Your task to perform on an android device: Clear all items from cart on costco.com. Add "usb-c to usb-b" to the cart on costco.com Image 0: 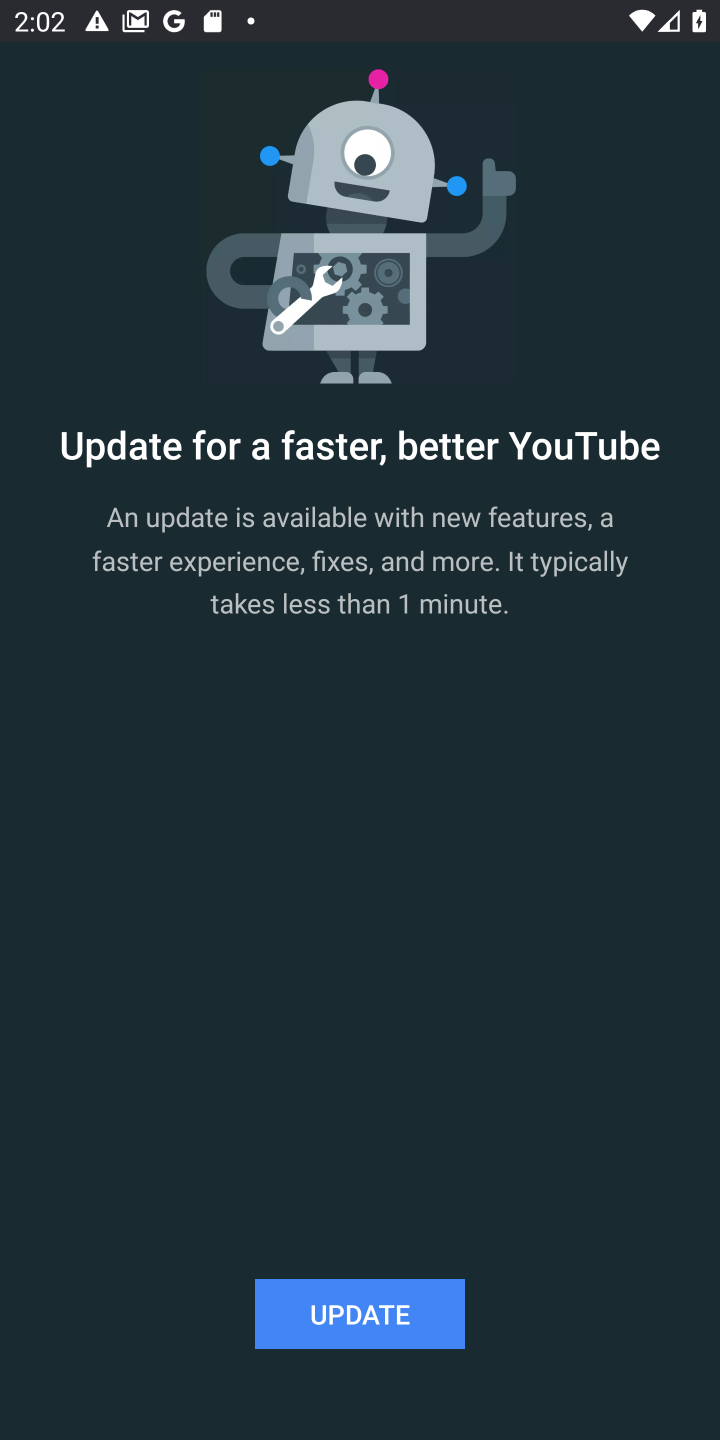
Step 0: press home button
Your task to perform on an android device: Clear all items from cart on costco.com. Add "usb-c to usb-b" to the cart on costco.com Image 1: 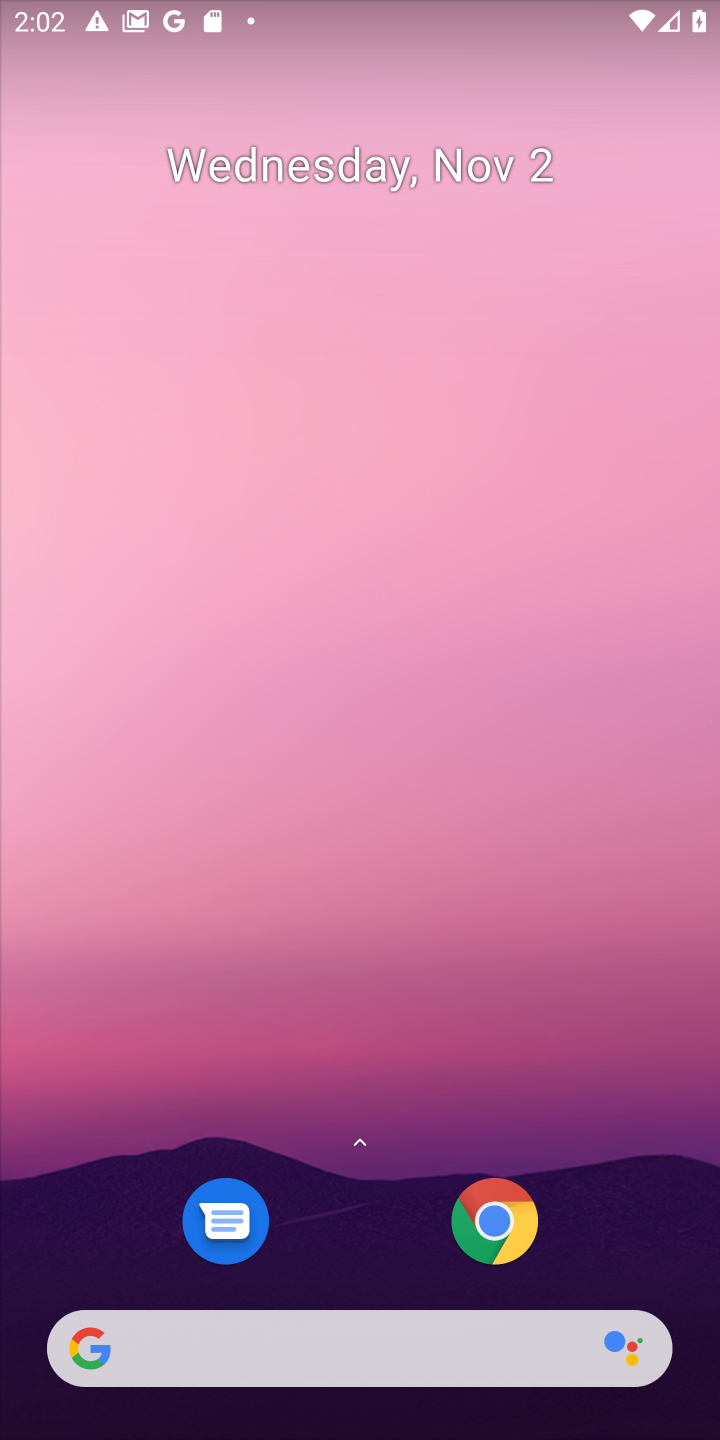
Step 1: click (279, 1372)
Your task to perform on an android device: Clear all items from cart on costco.com. Add "usb-c to usb-b" to the cart on costco.com Image 2: 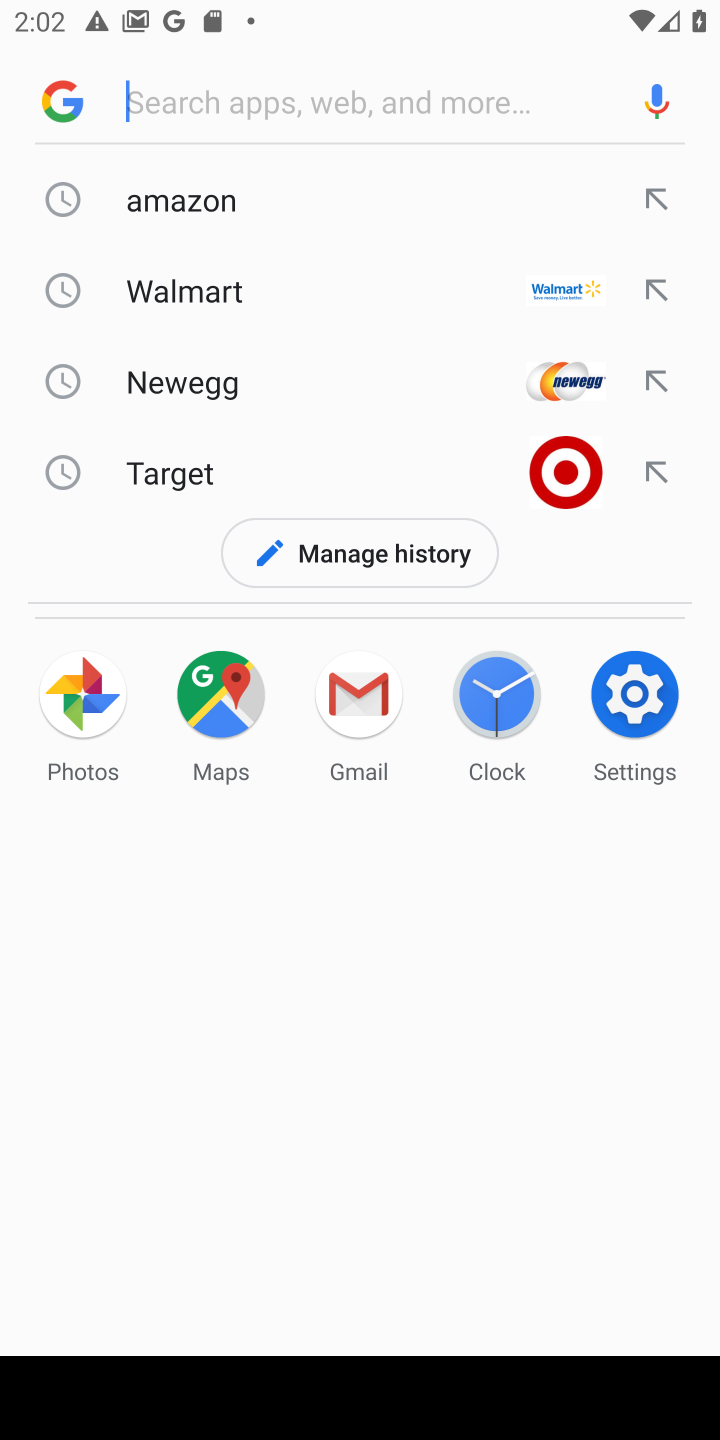
Step 2: type "costco"
Your task to perform on an android device: Clear all items from cart on costco.com. Add "usb-c to usb-b" to the cart on costco.com Image 3: 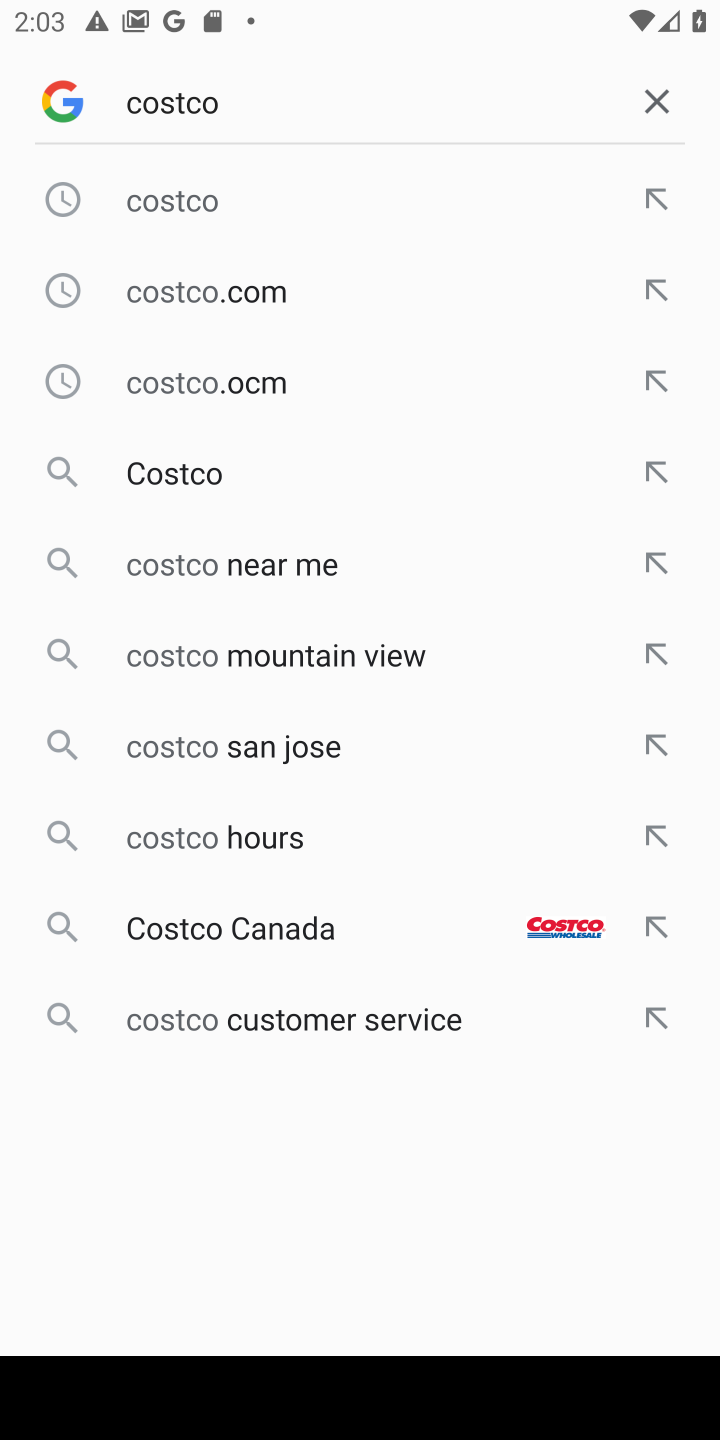
Step 3: click (280, 179)
Your task to perform on an android device: Clear all items from cart on costco.com. Add "usb-c to usb-b" to the cart on costco.com Image 4: 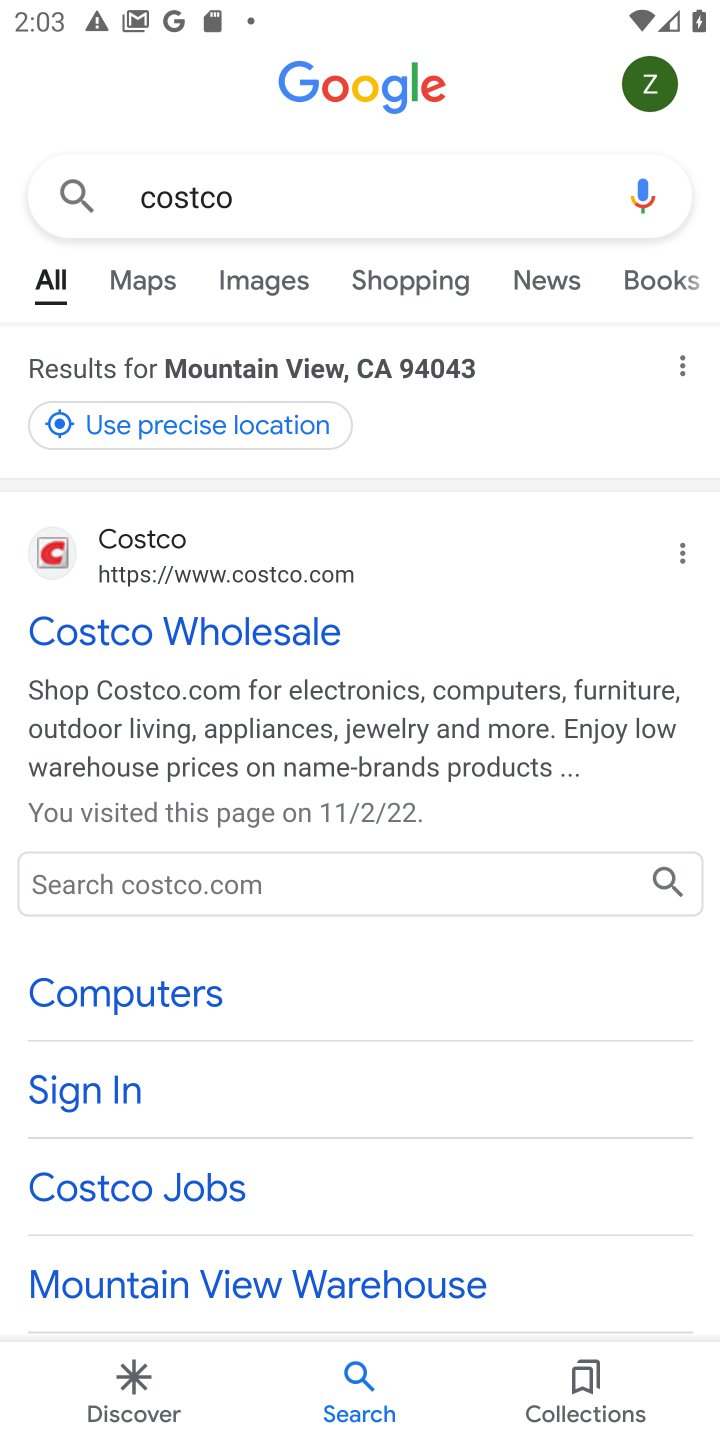
Step 4: click (179, 620)
Your task to perform on an android device: Clear all items from cart on costco.com. Add "usb-c to usb-b" to the cart on costco.com Image 5: 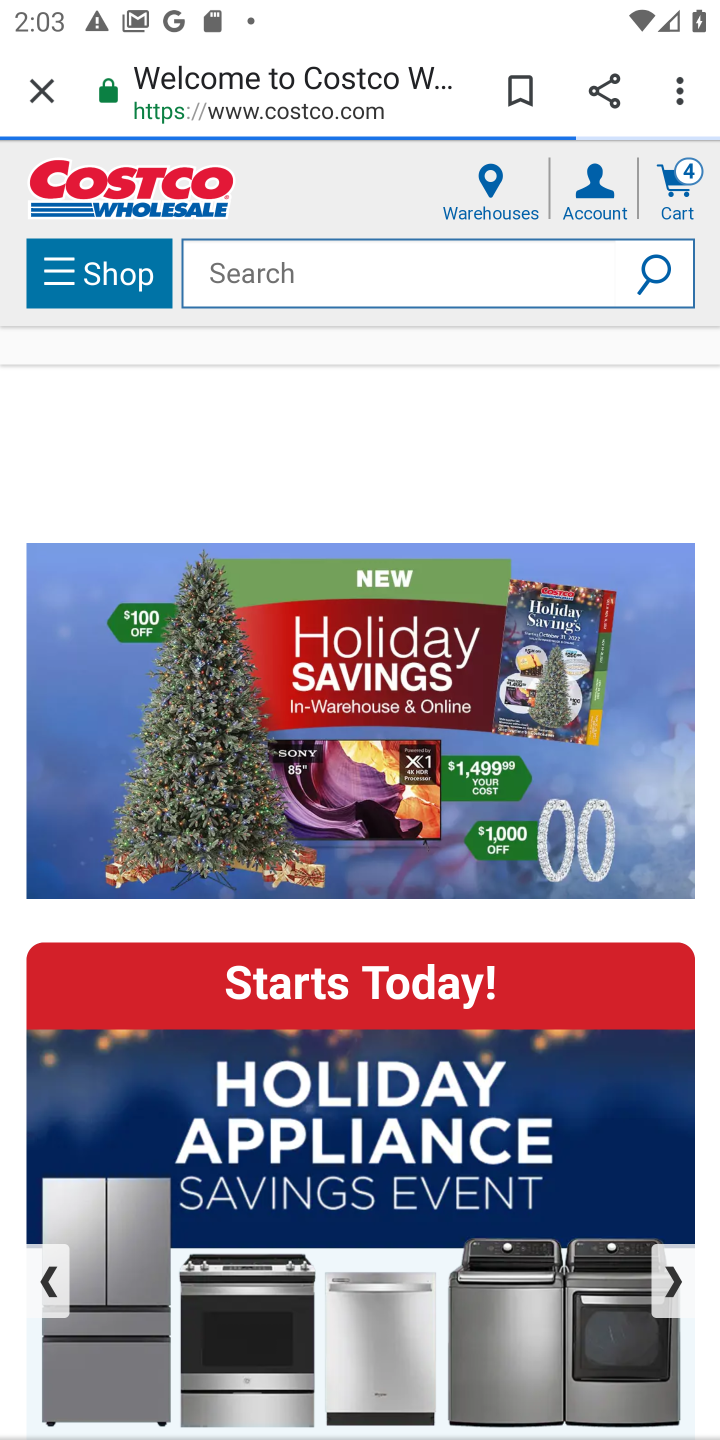
Step 5: click (343, 262)
Your task to perform on an android device: Clear all items from cart on costco.com. Add "usb-c to usb-b" to the cart on costco.com Image 6: 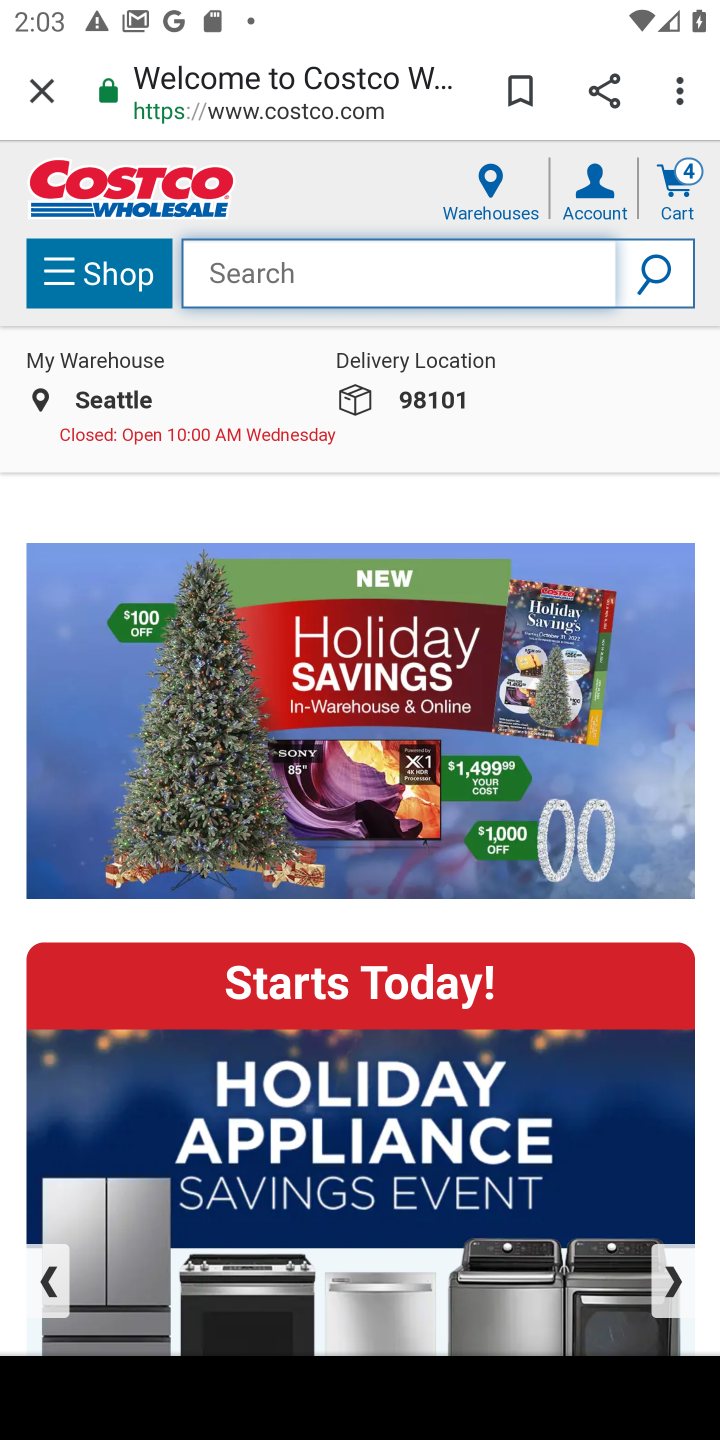
Step 6: type "usb-c to usb-b"
Your task to perform on an android device: Clear all items from cart on costco.com. Add "usb-c to usb-b" to the cart on costco.com Image 7: 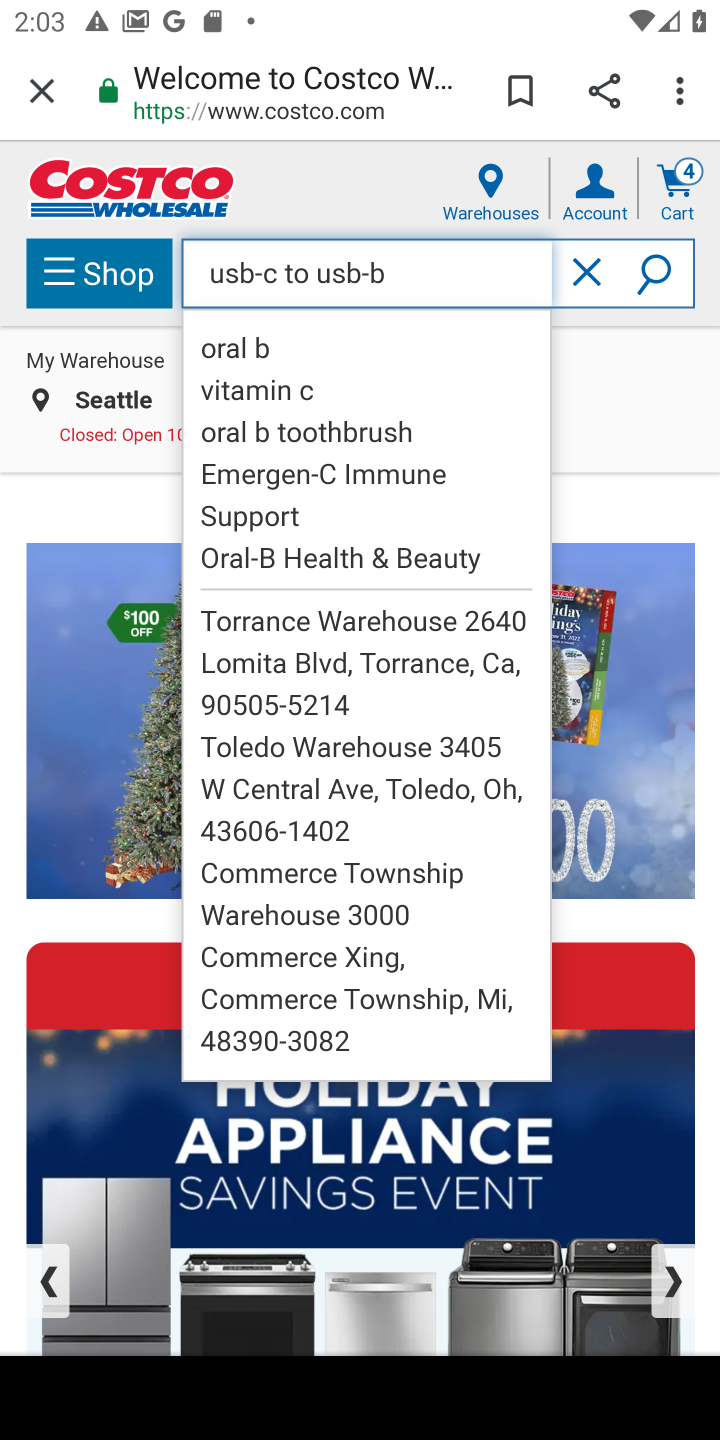
Step 7: click (647, 268)
Your task to perform on an android device: Clear all items from cart on costco.com. Add "usb-c to usb-b" to the cart on costco.com Image 8: 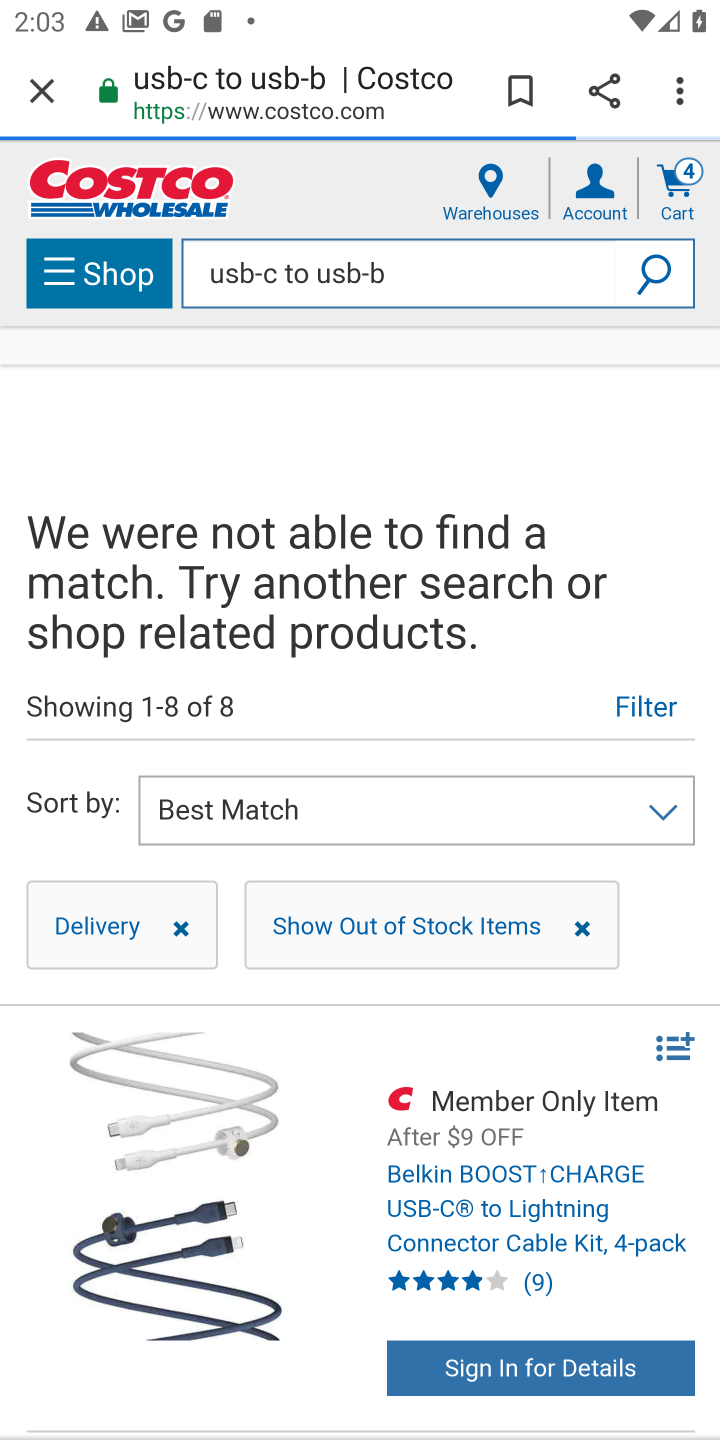
Step 8: click (323, 1234)
Your task to perform on an android device: Clear all items from cart on costco.com. Add "usb-c to usb-b" to the cart on costco.com Image 9: 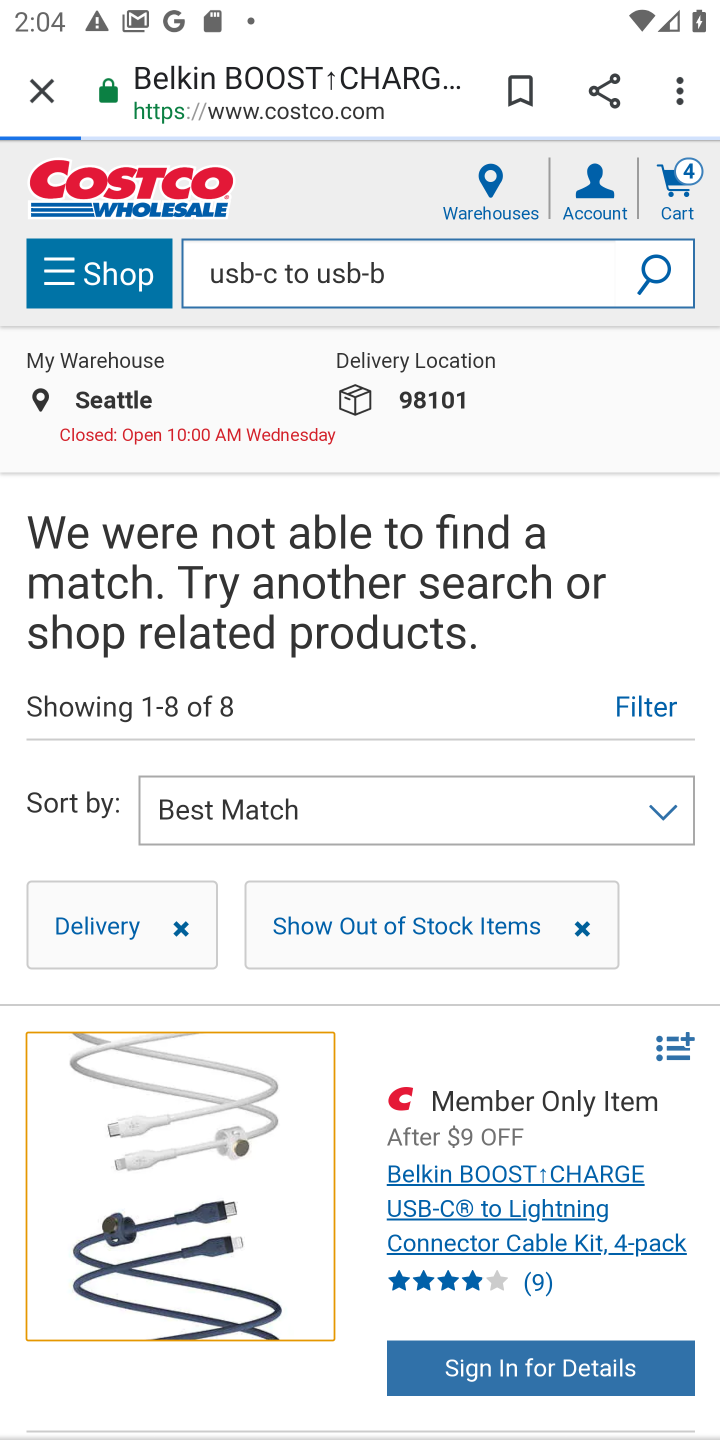
Step 9: task complete